Your task to perform on an android device: Add razer deathadder to the cart on target Image 0: 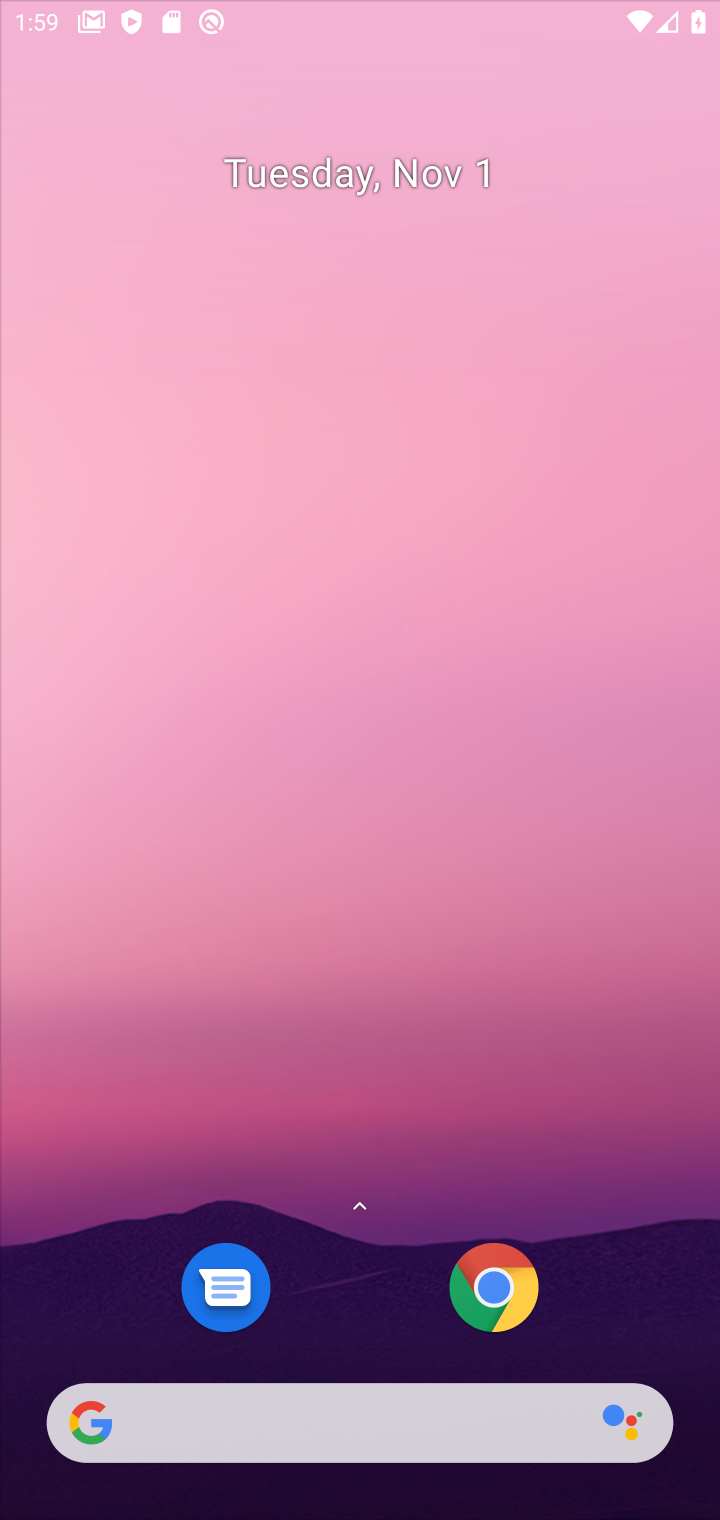
Step 0: press home button
Your task to perform on an android device: Add razer deathadder to the cart on target Image 1: 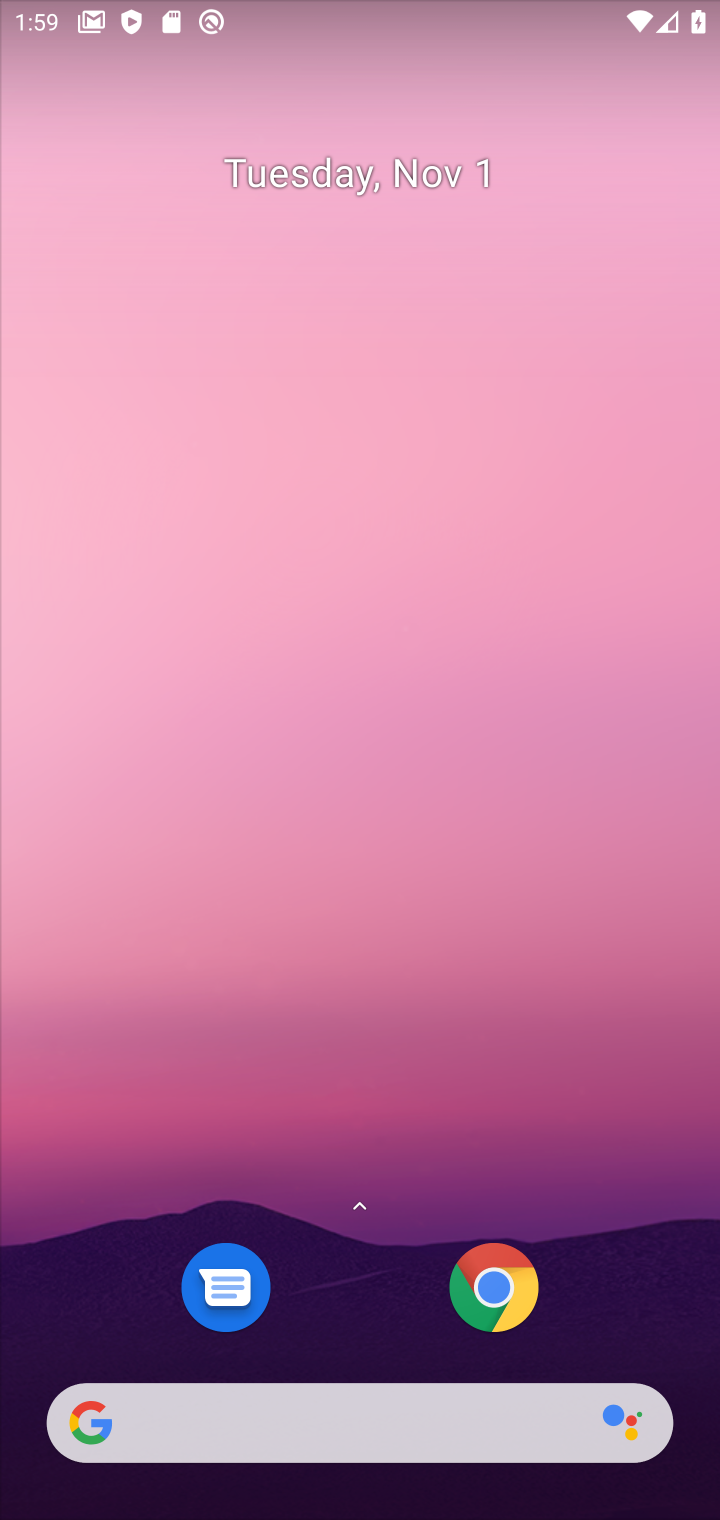
Step 1: drag from (386, 1162) to (589, 59)
Your task to perform on an android device: Add razer deathadder to the cart on target Image 2: 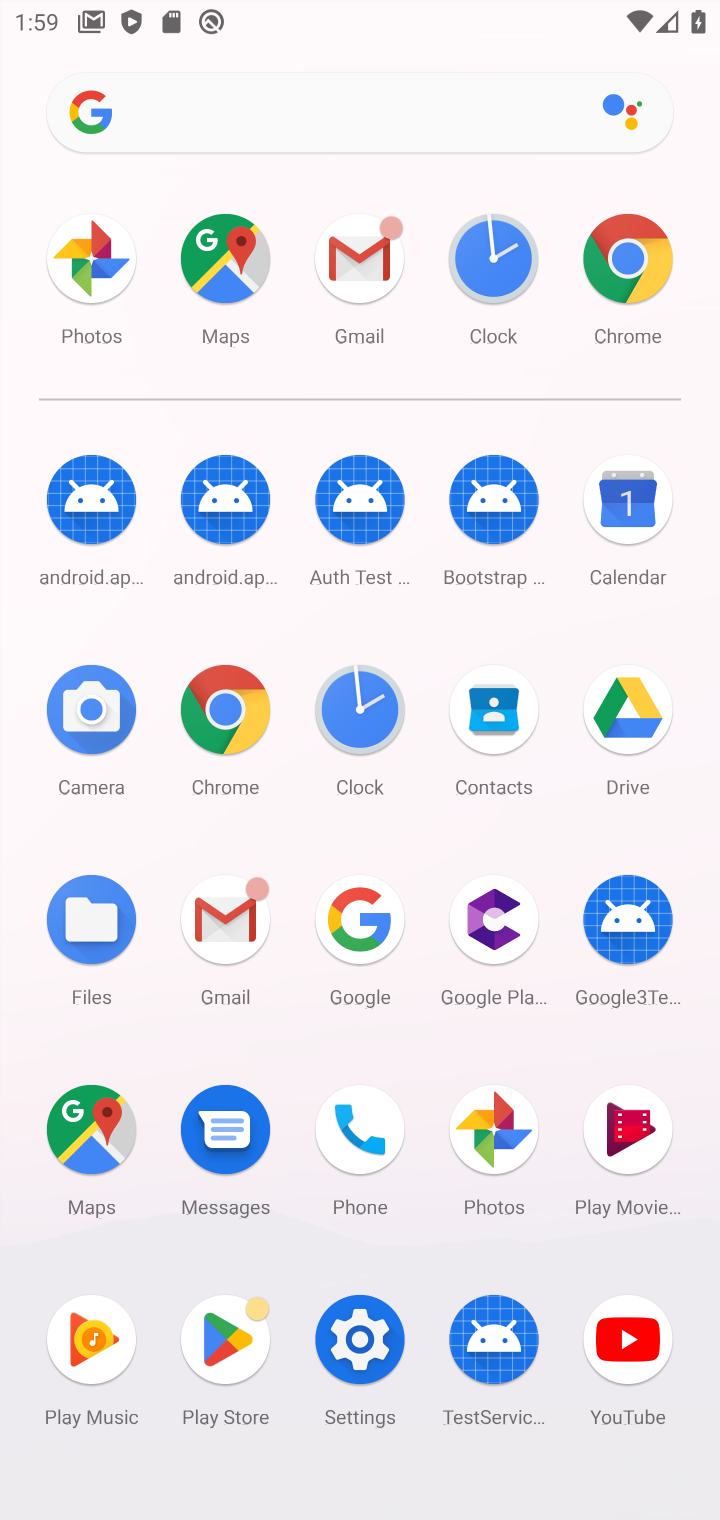
Step 2: click (249, 713)
Your task to perform on an android device: Add razer deathadder to the cart on target Image 3: 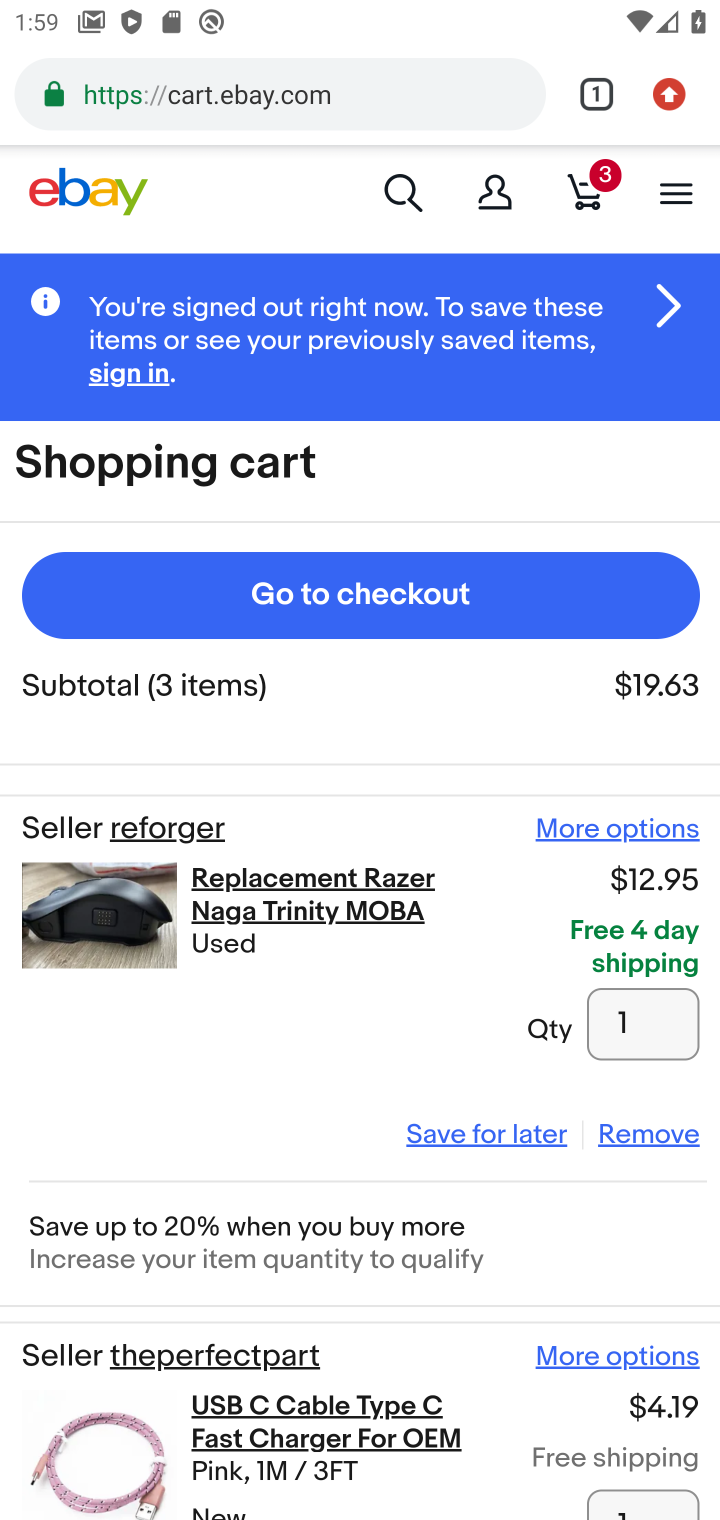
Step 3: click (439, 99)
Your task to perform on an android device: Add razer deathadder to the cart on target Image 4: 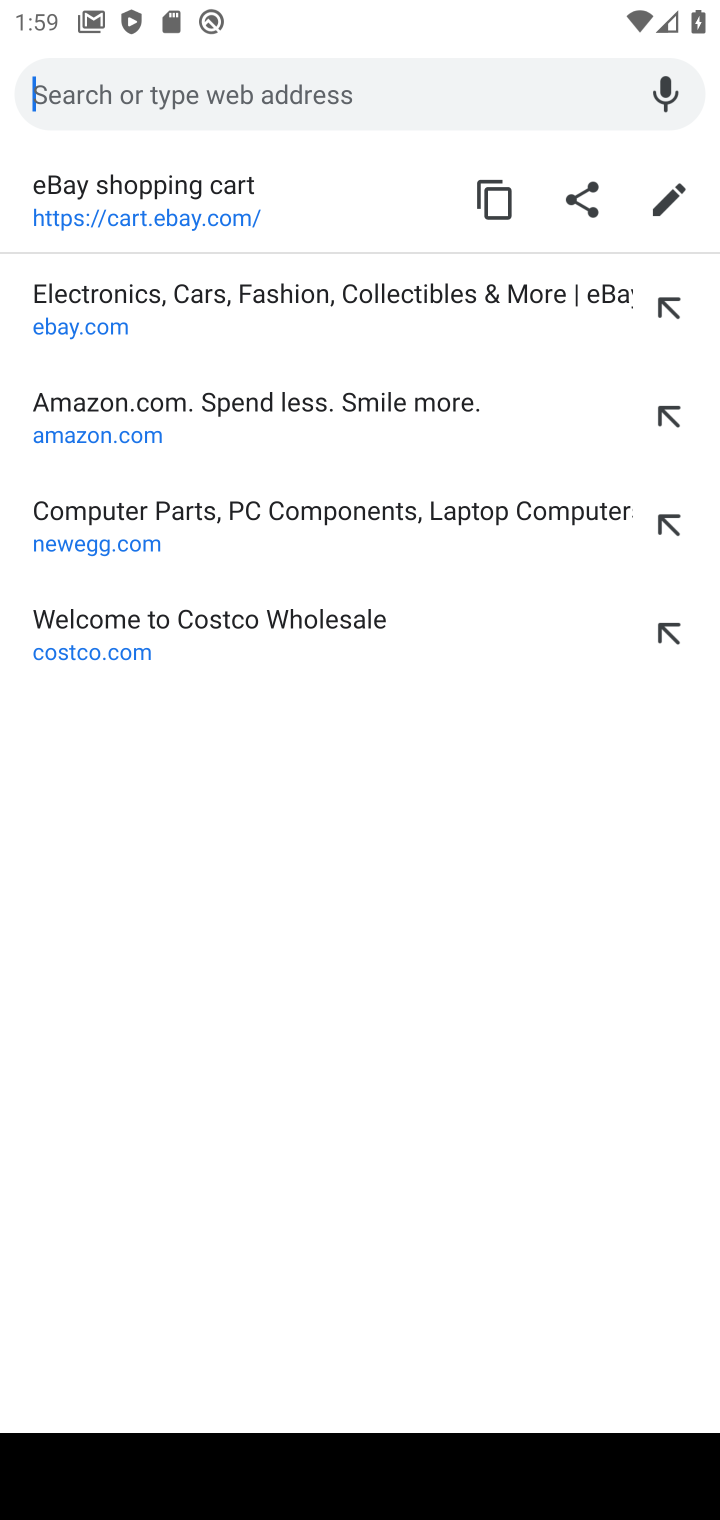
Step 4: type "target.com"
Your task to perform on an android device: Add razer deathadder to the cart on target Image 5: 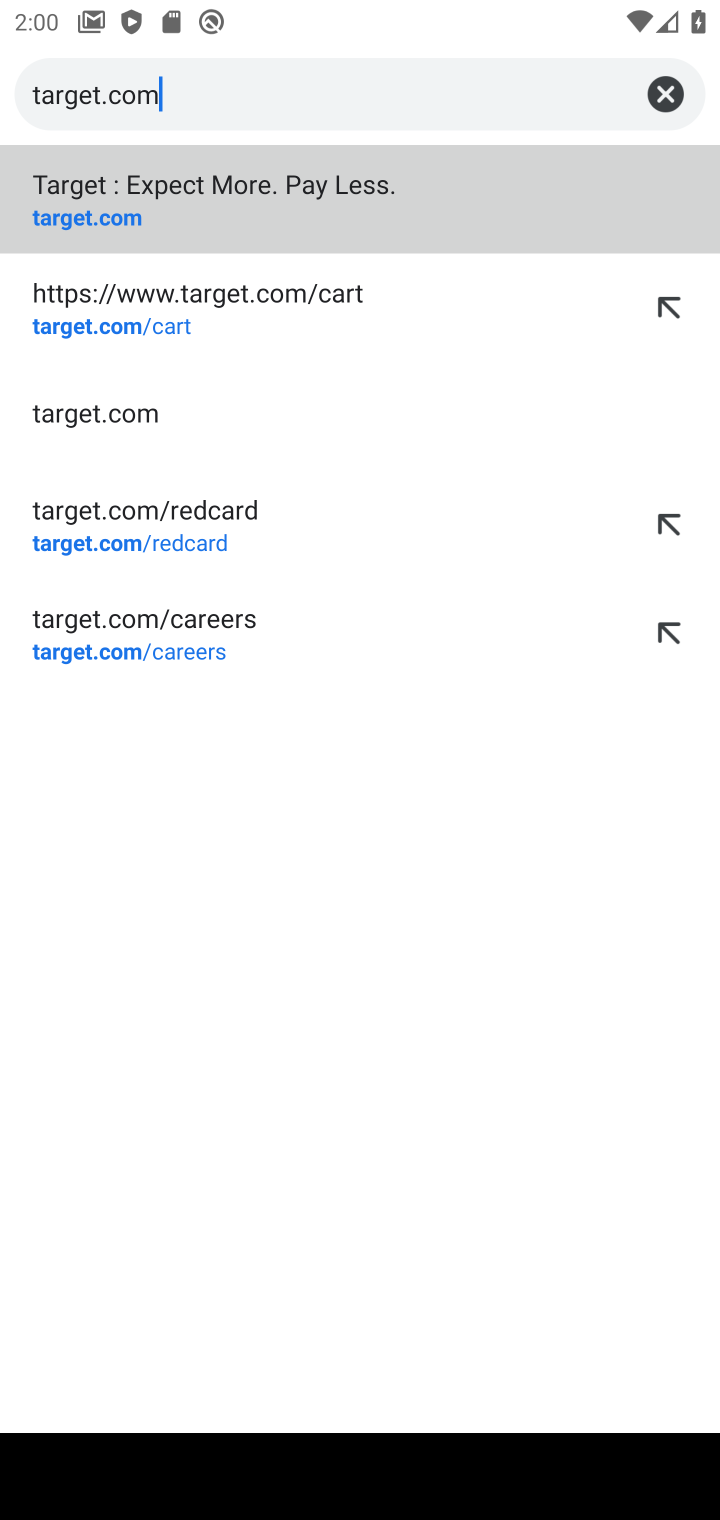
Step 5: click (350, 208)
Your task to perform on an android device: Add razer deathadder to the cart on target Image 6: 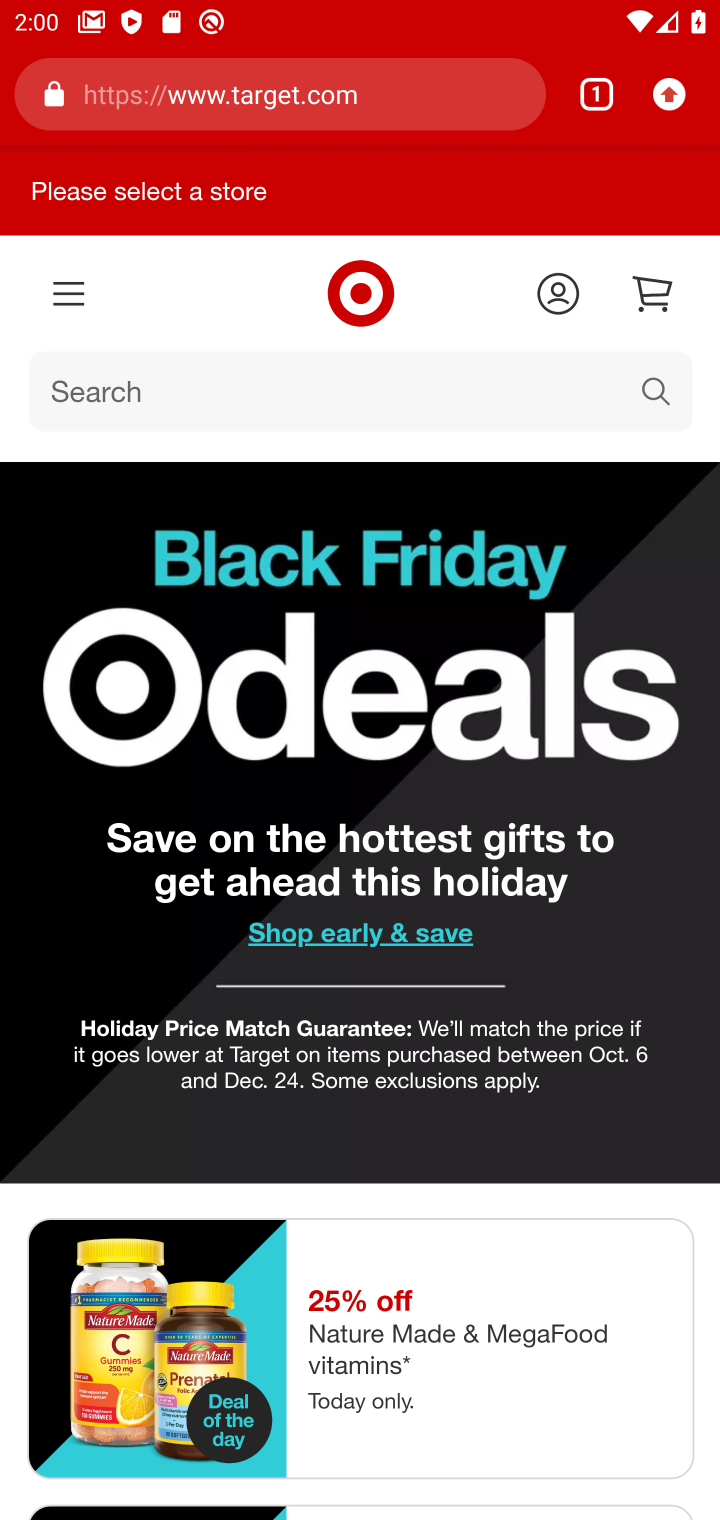
Step 6: click (457, 405)
Your task to perform on an android device: Add razer deathadder to the cart on target Image 7: 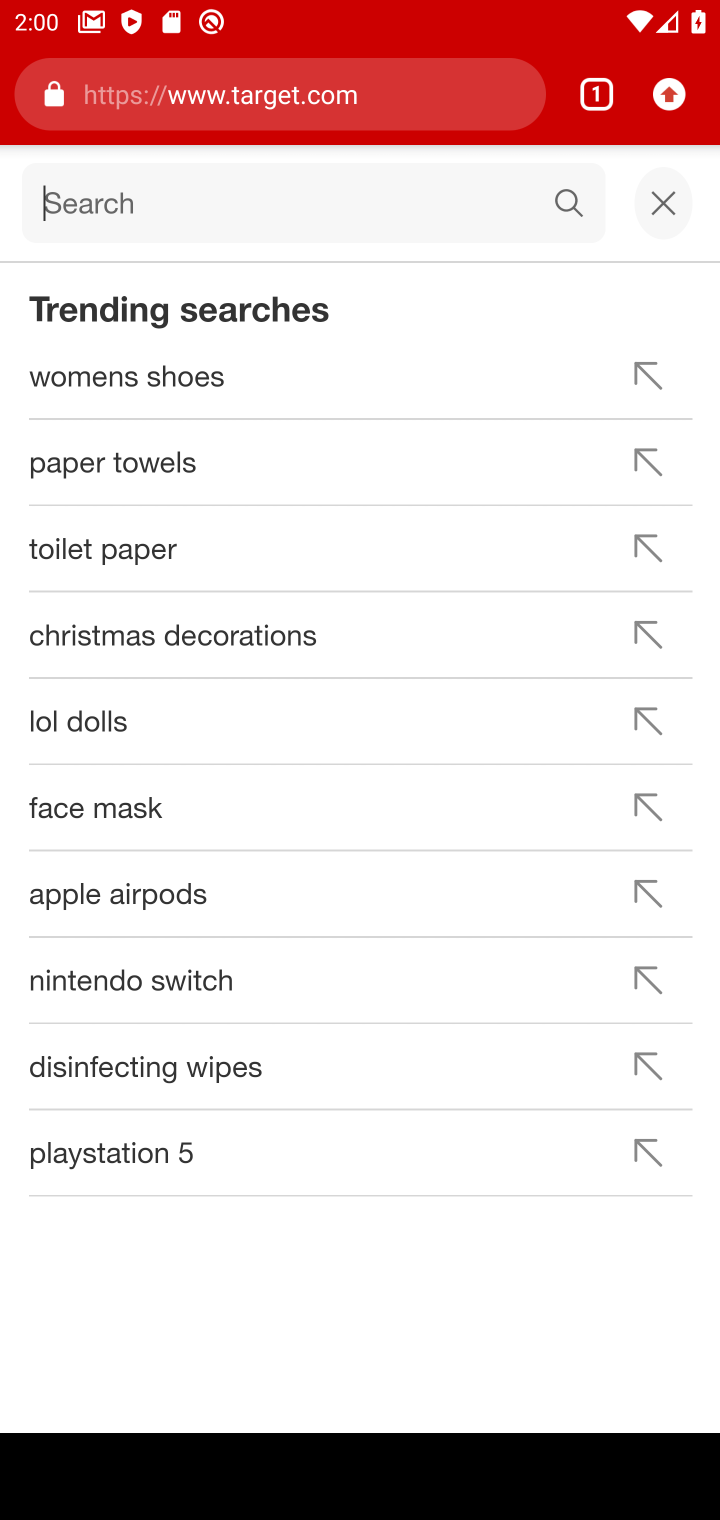
Step 7: type "razer deathadder"
Your task to perform on an android device: Add razer deathadder to the cart on target Image 8: 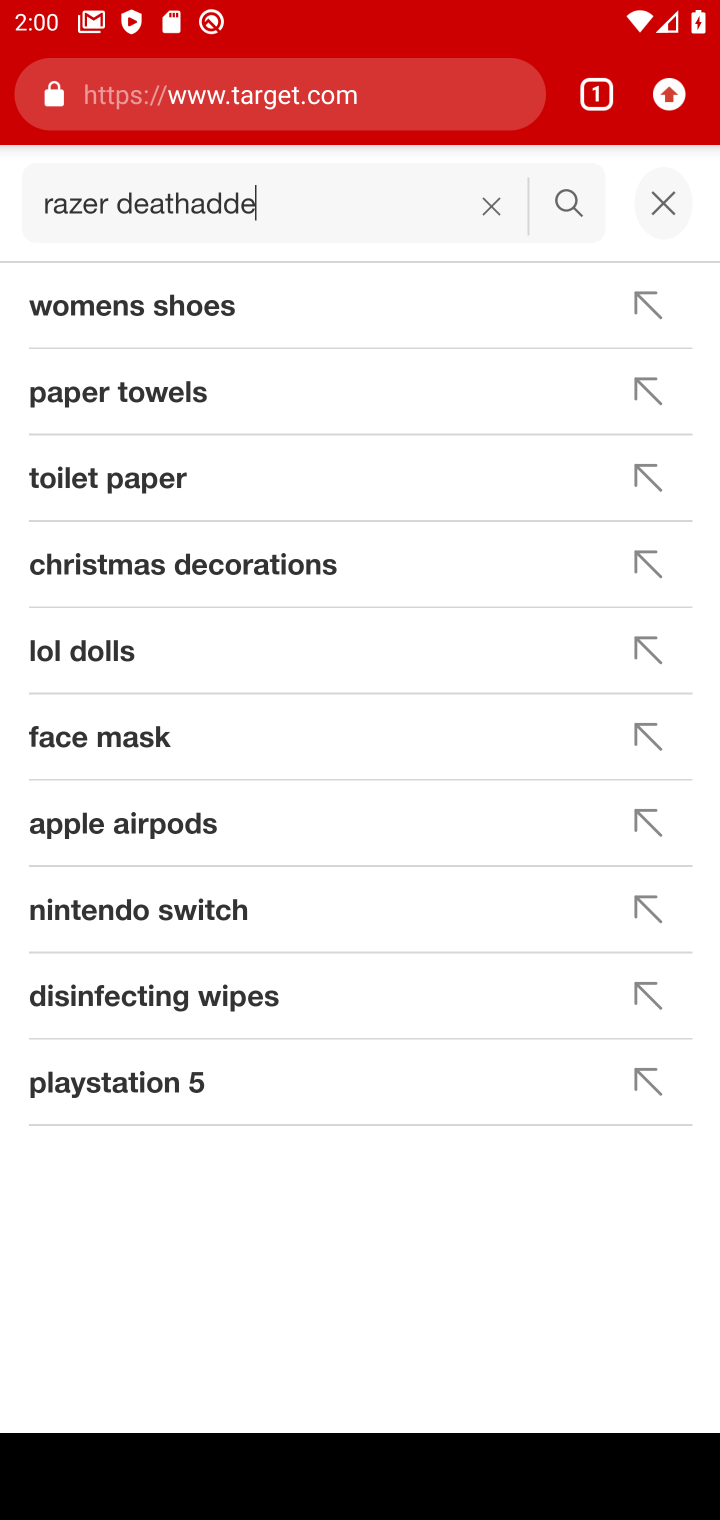
Step 8: press enter
Your task to perform on an android device: Add razer deathadder to the cart on target Image 9: 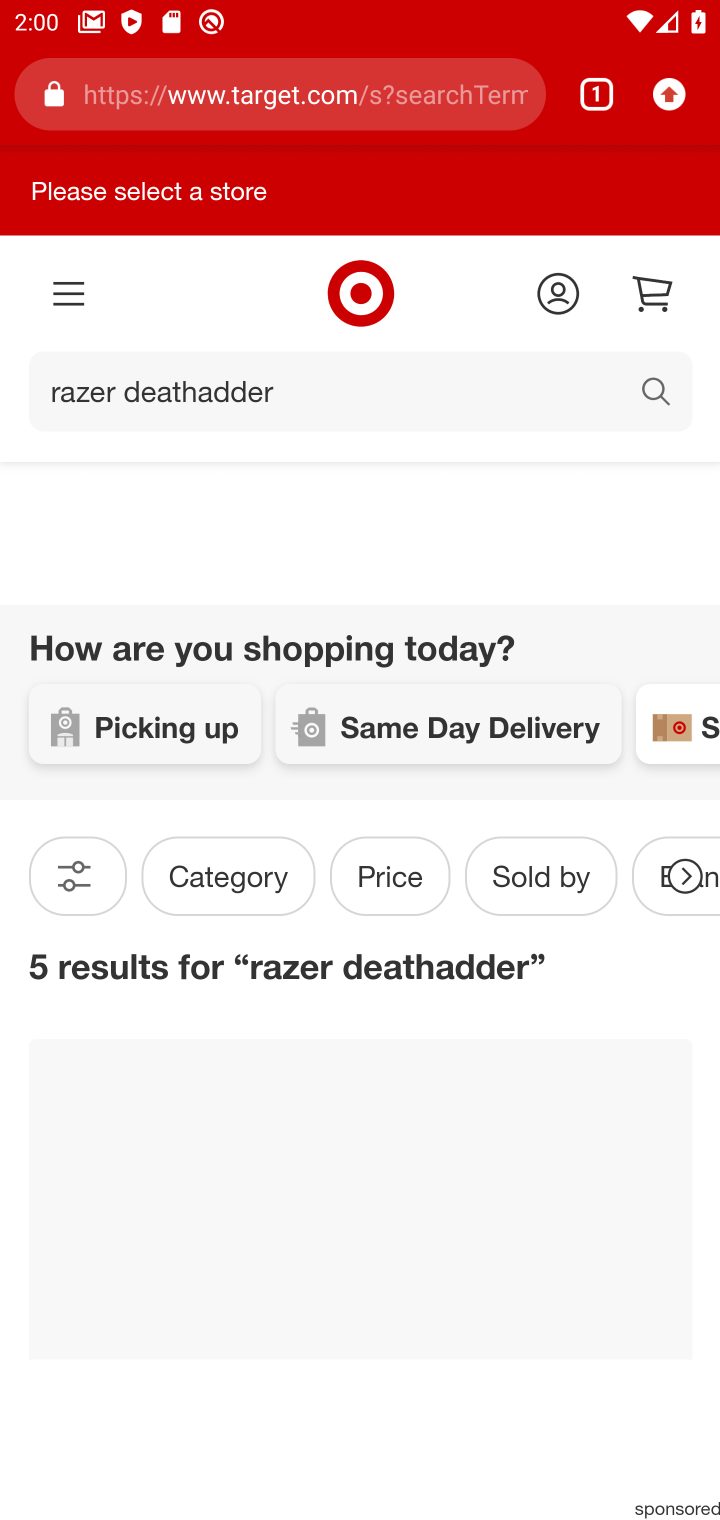
Step 9: drag from (480, 1028) to (460, 360)
Your task to perform on an android device: Add razer deathadder to the cart on target Image 10: 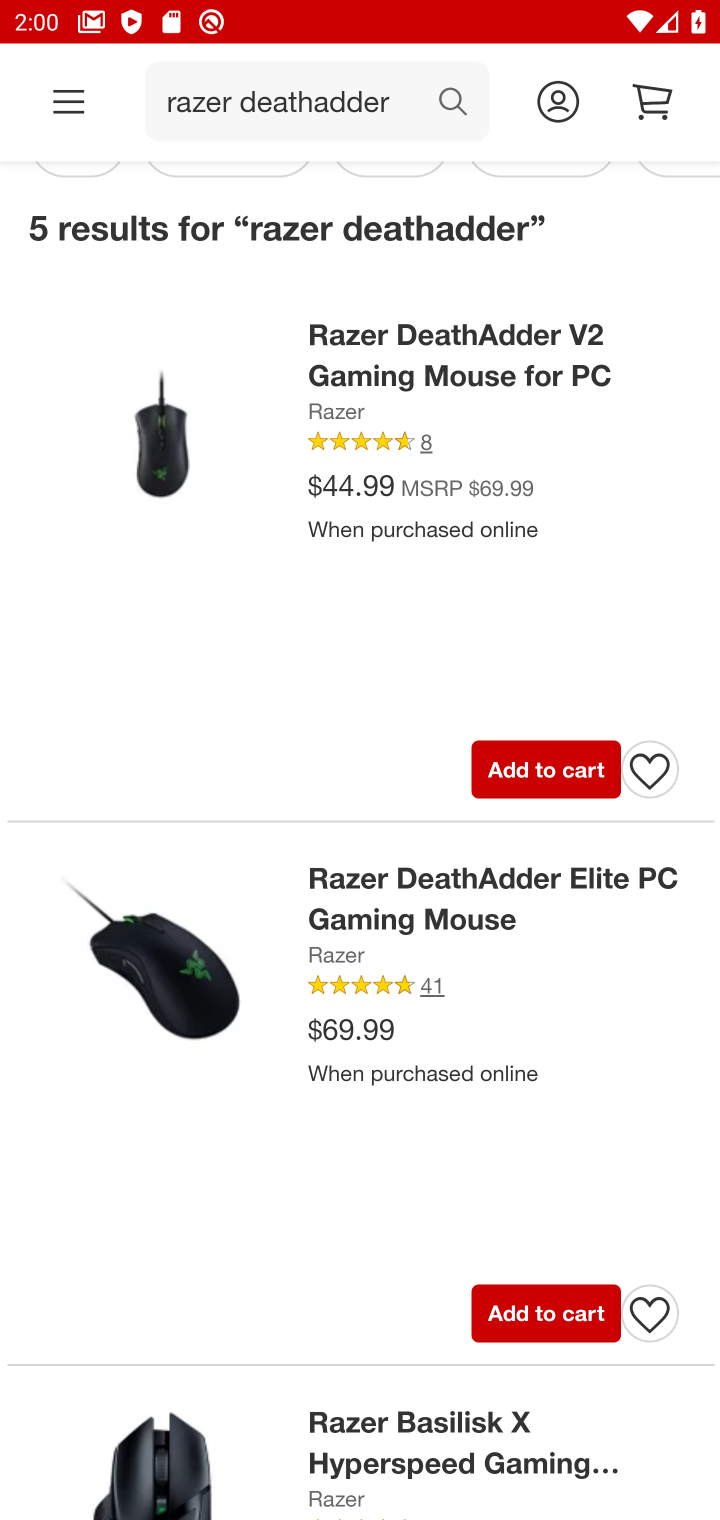
Step 10: click (578, 782)
Your task to perform on an android device: Add razer deathadder to the cart on target Image 11: 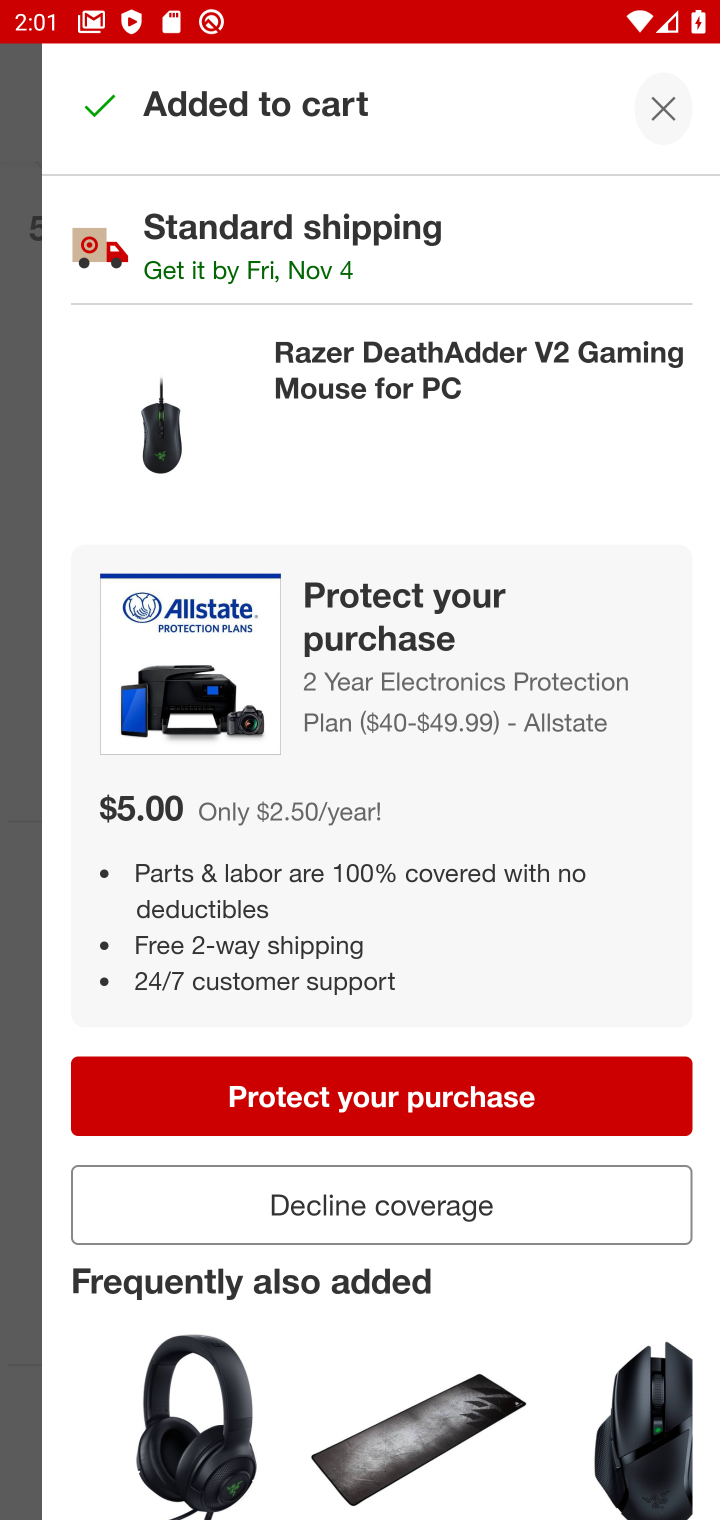
Step 11: task complete